Your task to perform on an android device: Open privacy settings Image 0: 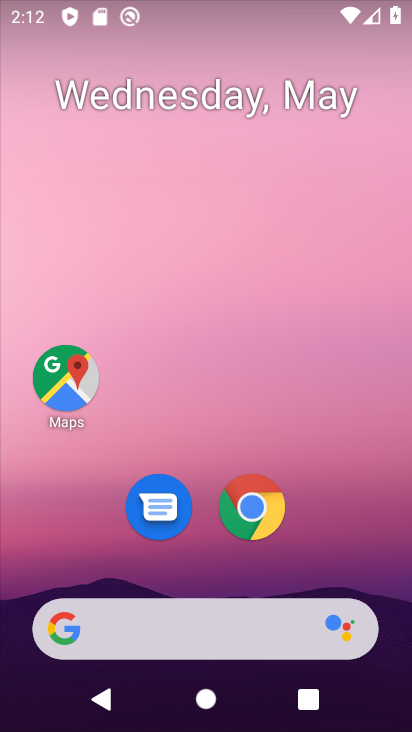
Step 0: press home button
Your task to perform on an android device: Open privacy settings Image 1: 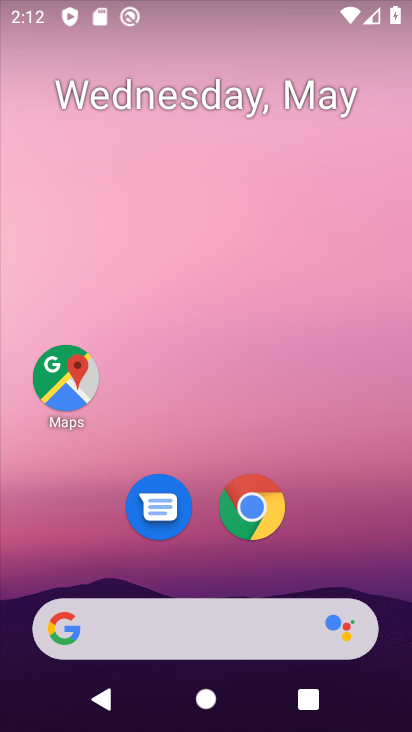
Step 1: drag from (387, 555) to (370, 124)
Your task to perform on an android device: Open privacy settings Image 2: 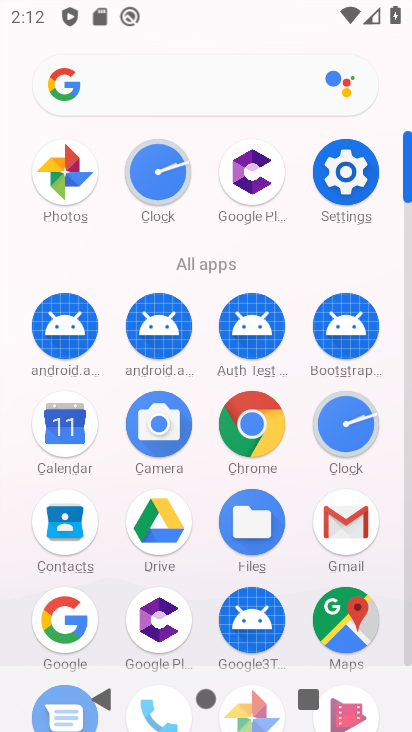
Step 2: click (331, 182)
Your task to perform on an android device: Open privacy settings Image 3: 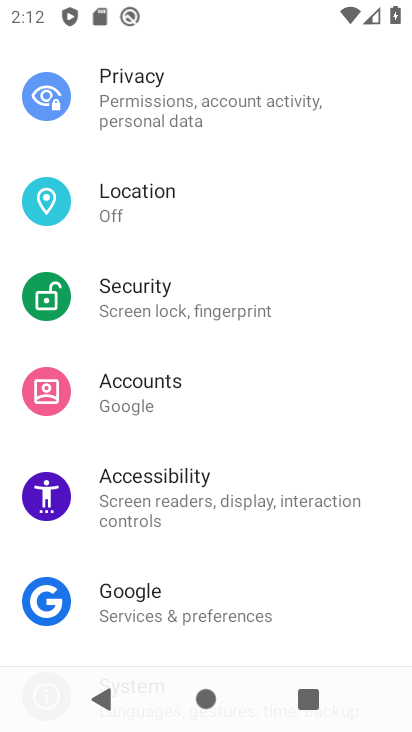
Step 3: click (172, 96)
Your task to perform on an android device: Open privacy settings Image 4: 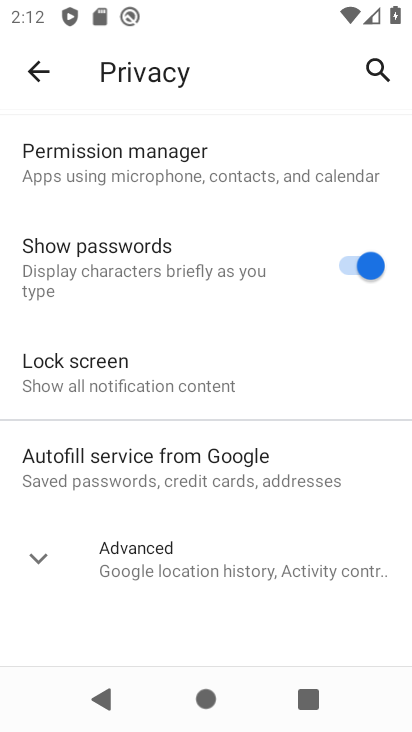
Step 4: task complete